Your task to perform on an android device: change timer sound Image 0: 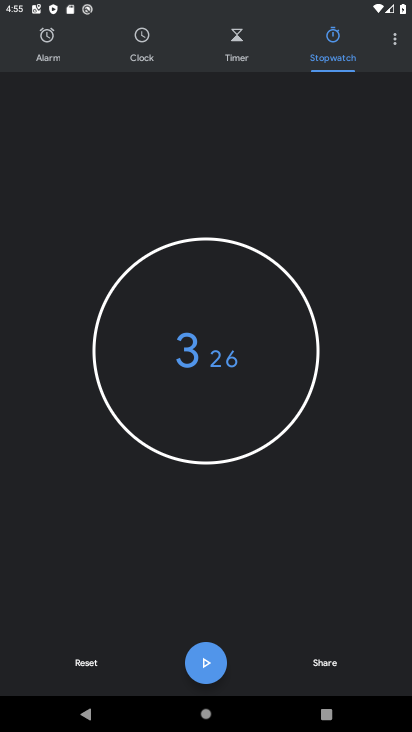
Step 0: click (399, 44)
Your task to perform on an android device: change timer sound Image 1: 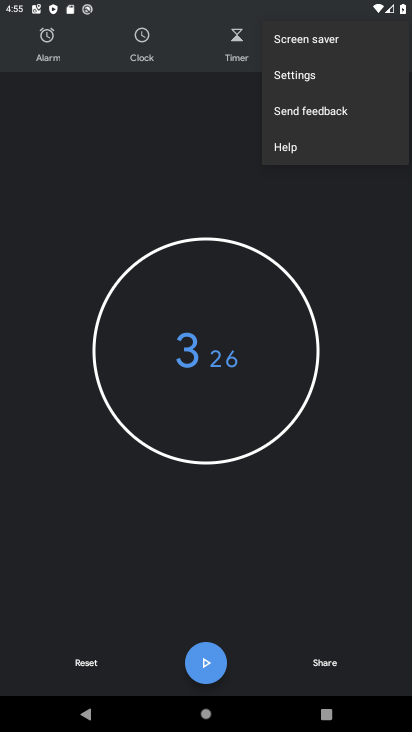
Step 1: click (297, 73)
Your task to perform on an android device: change timer sound Image 2: 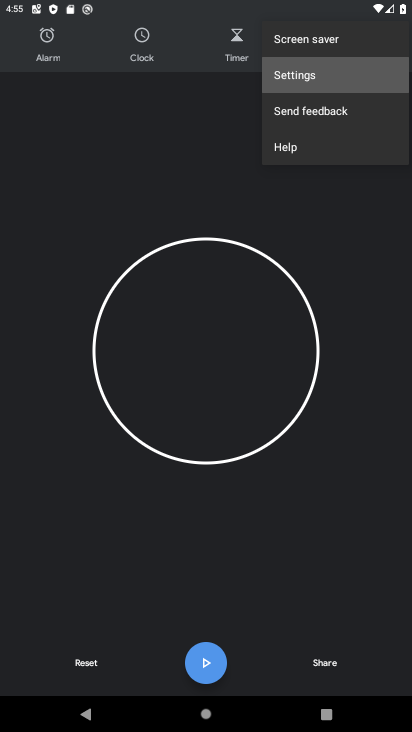
Step 2: click (296, 74)
Your task to perform on an android device: change timer sound Image 3: 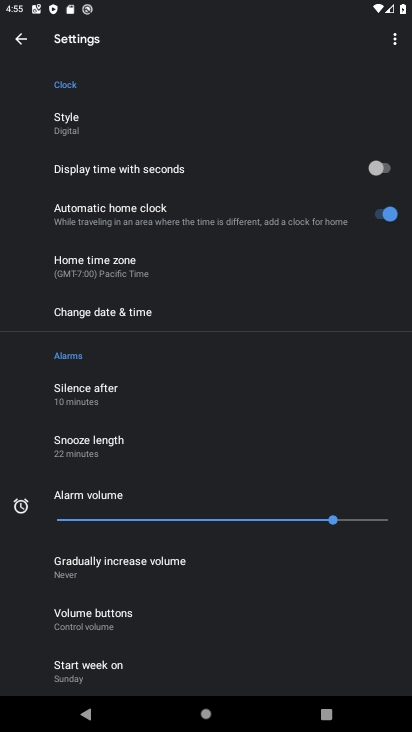
Step 3: drag from (151, 410) to (149, 252)
Your task to perform on an android device: change timer sound Image 4: 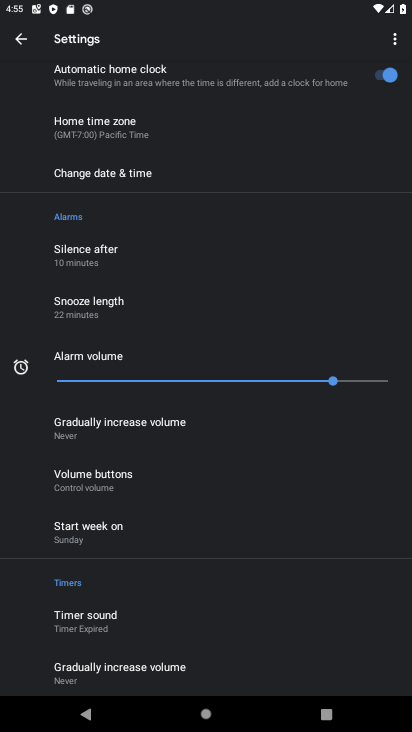
Step 4: drag from (156, 269) to (167, 549)
Your task to perform on an android device: change timer sound Image 5: 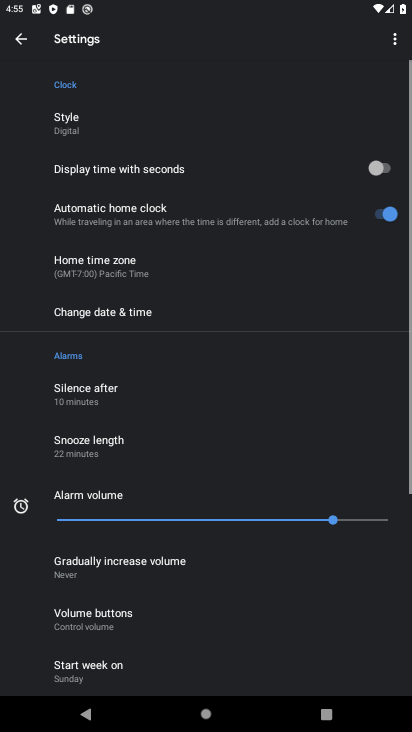
Step 5: drag from (163, 301) to (163, 441)
Your task to perform on an android device: change timer sound Image 6: 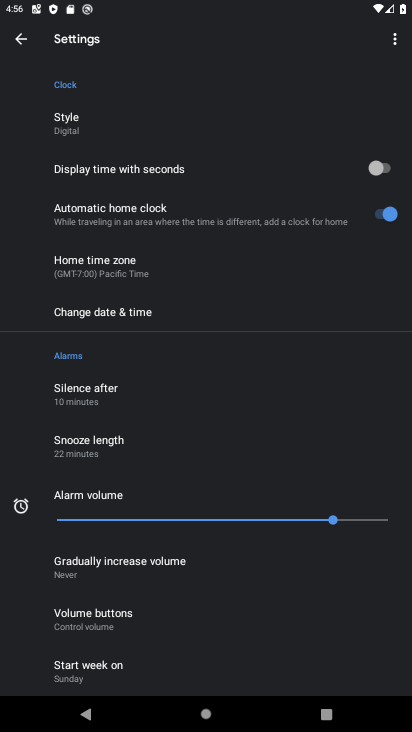
Step 6: drag from (128, 666) to (123, 342)
Your task to perform on an android device: change timer sound Image 7: 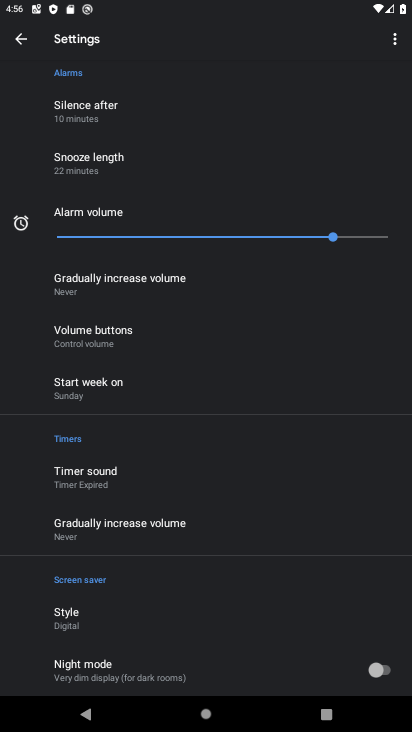
Step 7: click (87, 470)
Your task to perform on an android device: change timer sound Image 8: 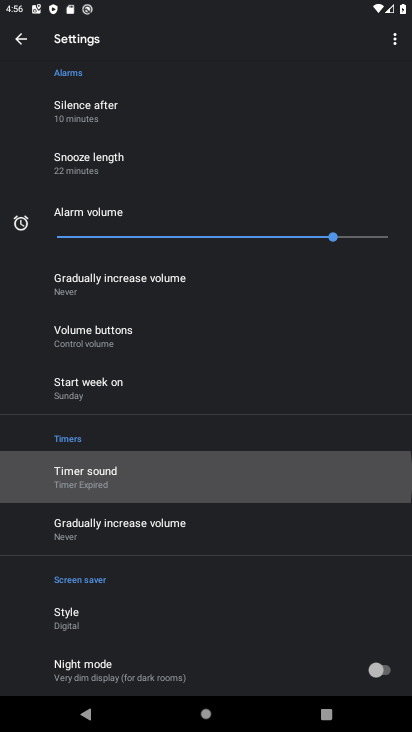
Step 8: click (86, 470)
Your task to perform on an android device: change timer sound Image 9: 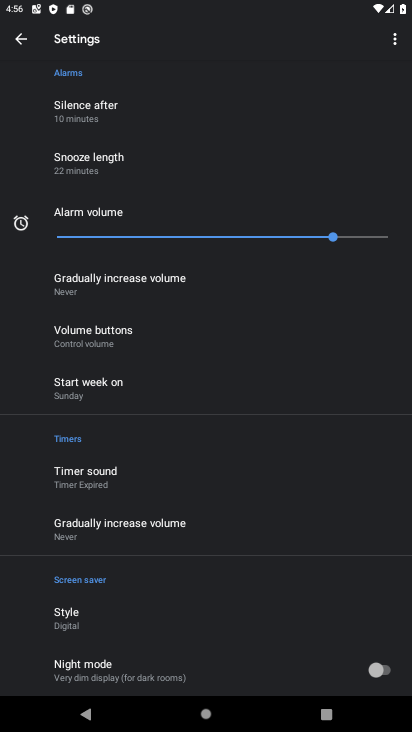
Step 9: click (85, 469)
Your task to perform on an android device: change timer sound Image 10: 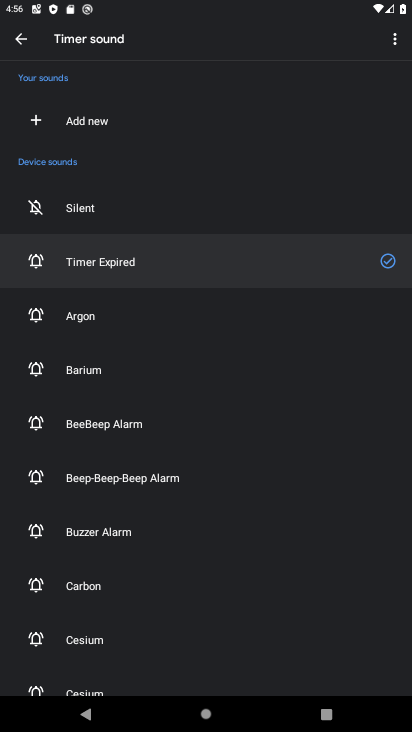
Step 10: click (102, 427)
Your task to perform on an android device: change timer sound Image 11: 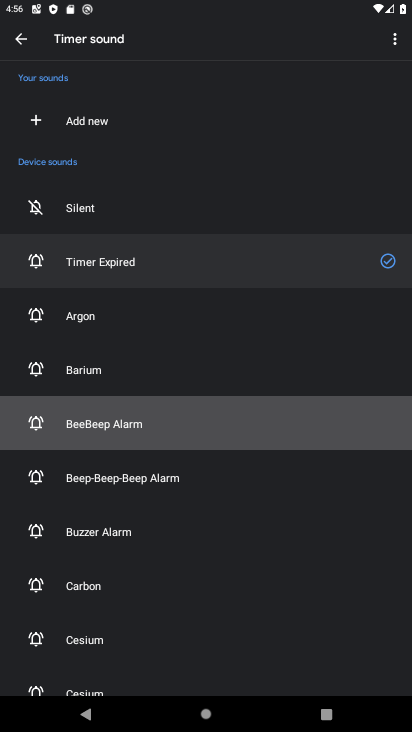
Step 11: click (110, 423)
Your task to perform on an android device: change timer sound Image 12: 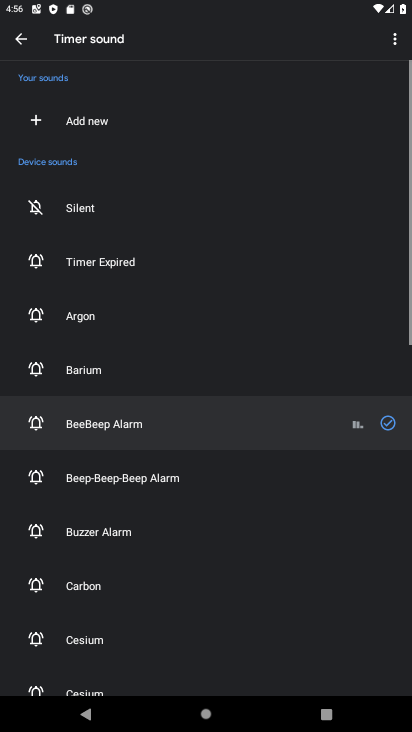
Step 12: click (110, 423)
Your task to perform on an android device: change timer sound Image 13: 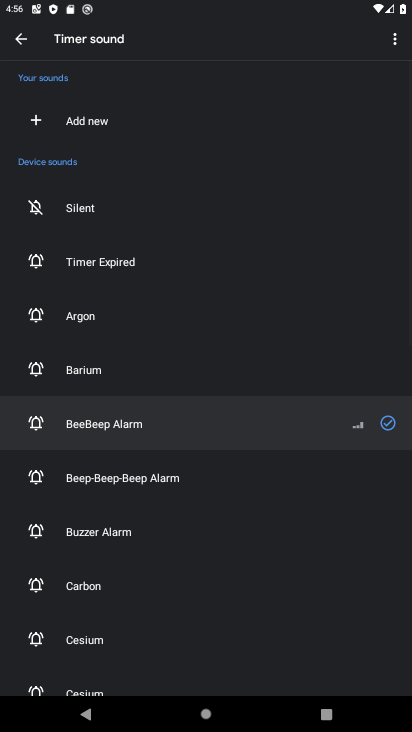
Step 13: task complete